Your task to perform on an android device: Open ESPN.com Image 0: 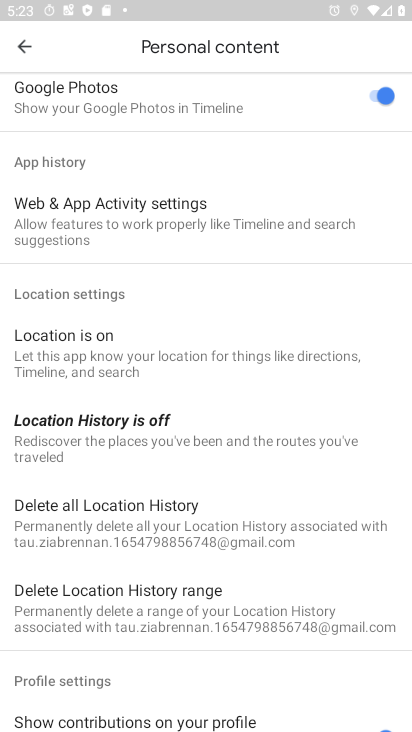
Step 0: press home button
Your task to perform on an android device: Open ESPN.com Image 1: 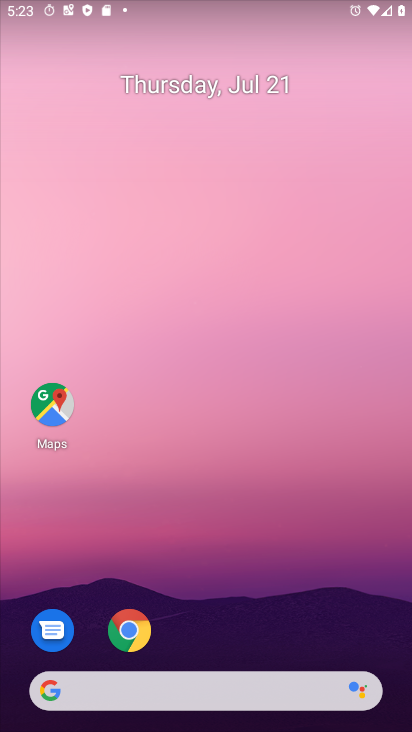
Step 1: click (129, 630)
Your task to perform on an android device: Open ESPN.com Image 2: 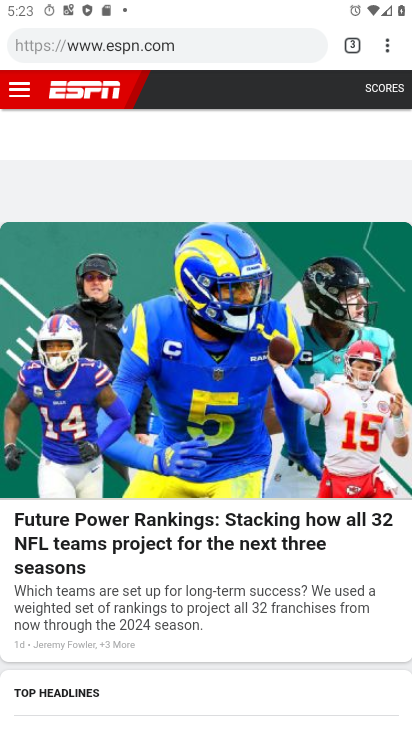
Step 2: click (259, 49)
Your task to perform on an android device: Open ESPN.com Image 3: 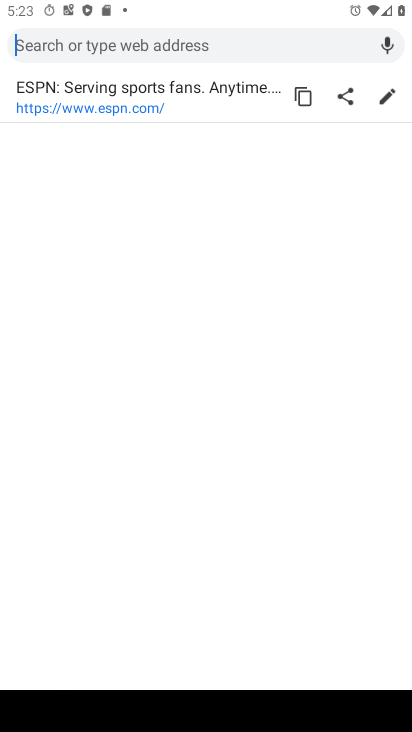
Step 3: click (141, 103)
Your task to perform on an android device: Open ESPN.com Image 4: 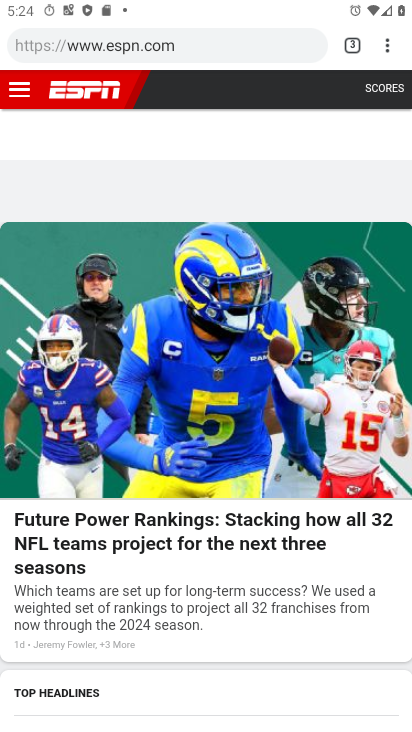
Step 4: task complete